Your task to perform on an android device: Go to ESPN.com Image 0: 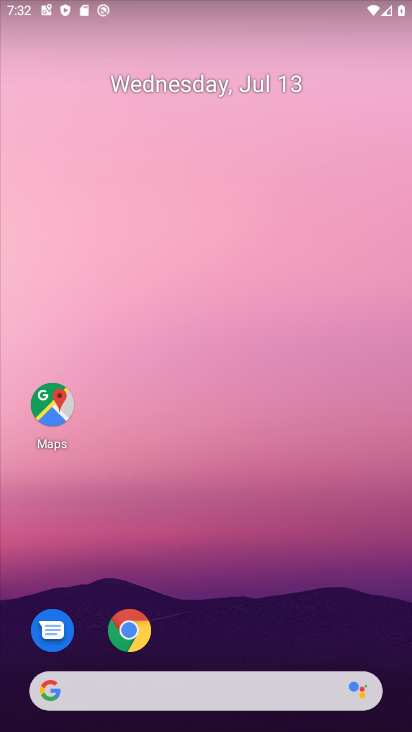
Step 0: drag from (324, 634) to (385, 233)
Your task to perform on an android device: Go to ESPN.com Image 1: 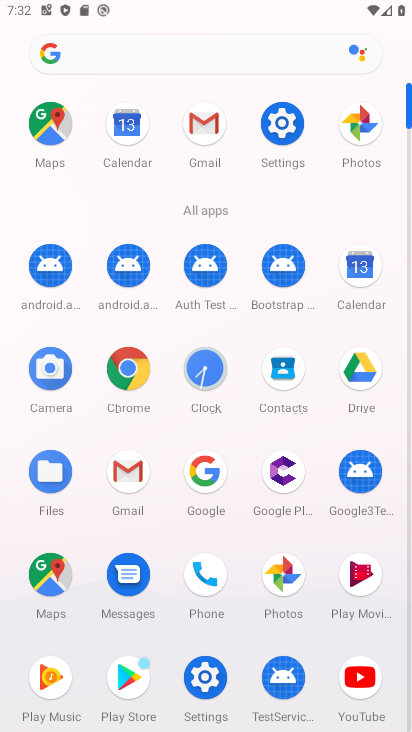
Step 1: click (134, 375)
Your task to perform on an android device: Go to ESPN.com Image 2: 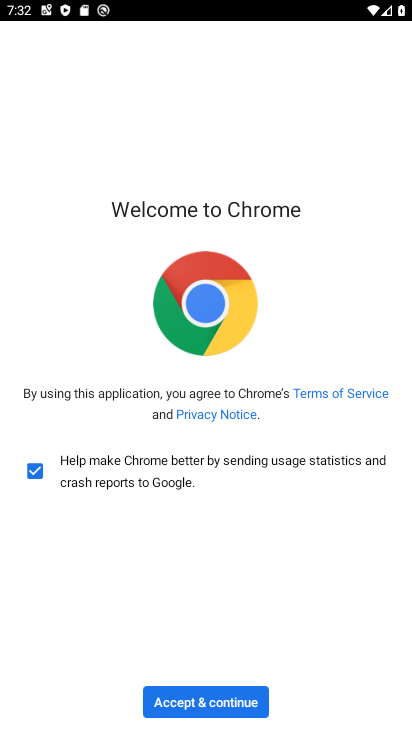
Step 2: click (203, 704)
Your task to perform on an android device: Go to ESPN.com Image 3: 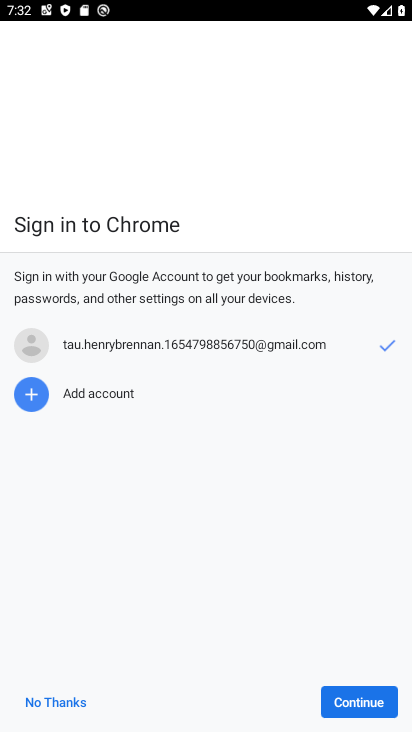
Step 3: click (343, 700)
Your task to perform on an android device: Go to ESPN.com Image 4: 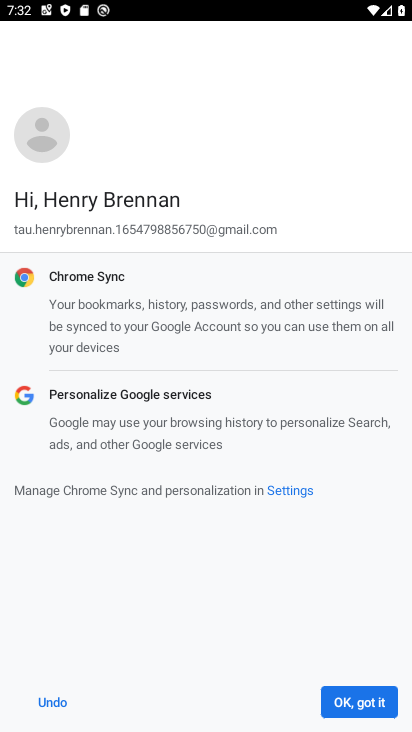
Step 4: click (343, 700)
Your task to perform on an android device: Go to ESPN.com Image 5: 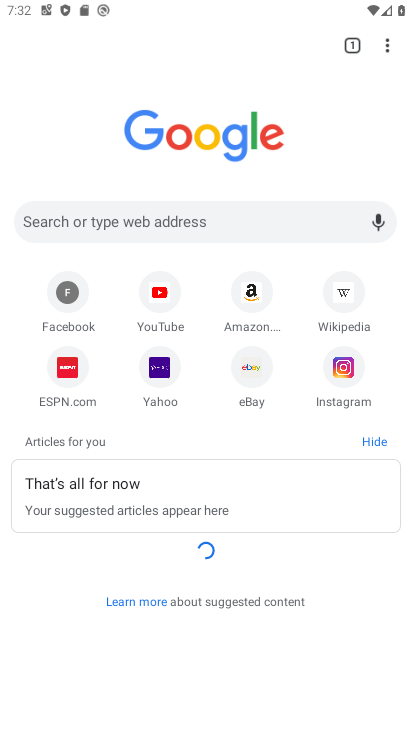
Step 5: click (285, 217)
Your task to perform on an android device: Go to ESPN.com Image 6: 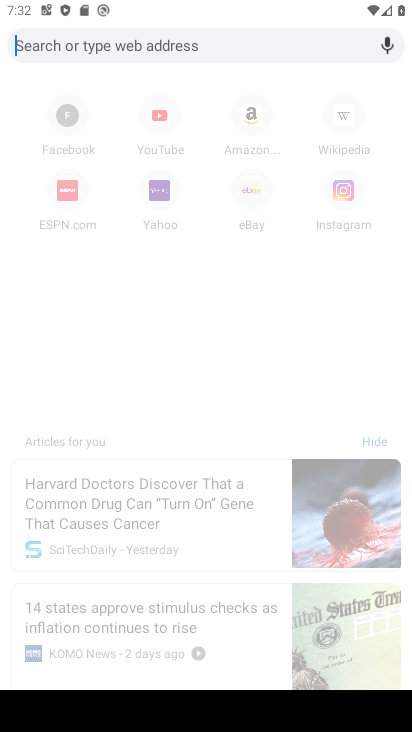
Step 6: type "espn.com"
Your task to perform on an android device: Go to ESPN.com Image 7: 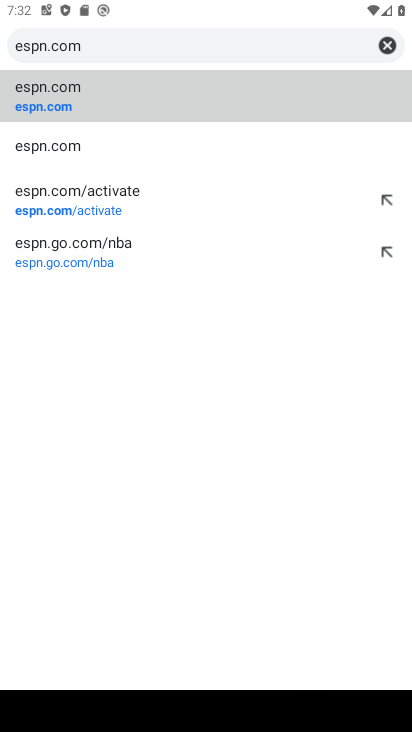
Step 7: click (143, 95)
Your task to perform on an android device: Go to ESPN.com Image 8: 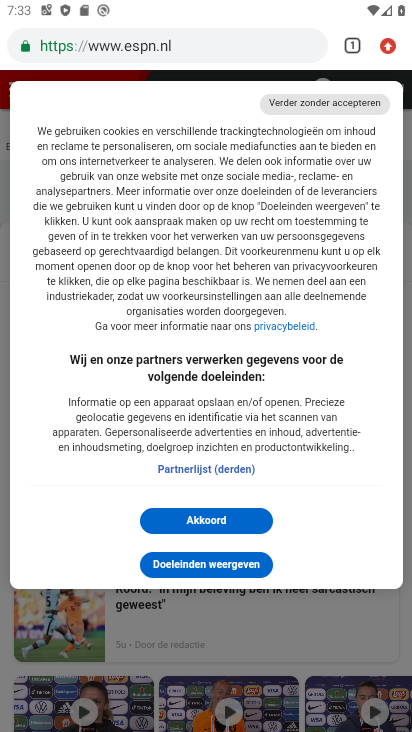
Step 8: task complete